Your task to perform on an android device: see creations saved in the google photos Image 0: 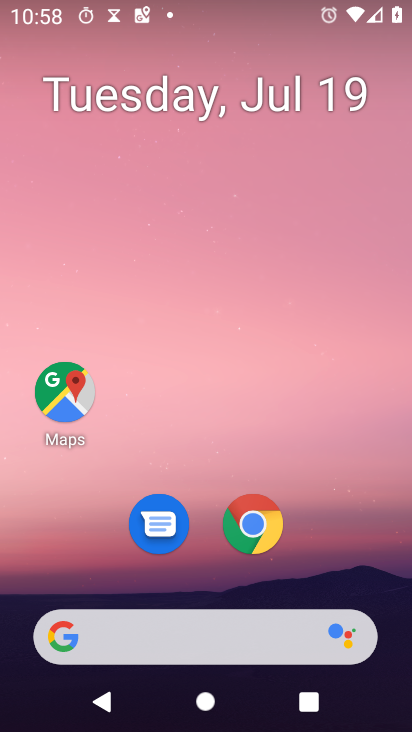
Step 0: drag from (211, 630) to (349, 132)
Your task to perform on an android device: see creations saved in the google photos Image 1: 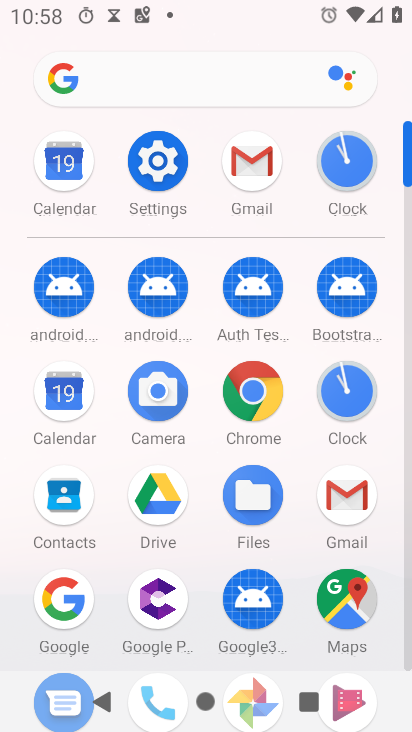
Step 1: drag from (219, 617) to (356, 300)
Your task to perform on an android device: see creations saved in the google photos Image 2: 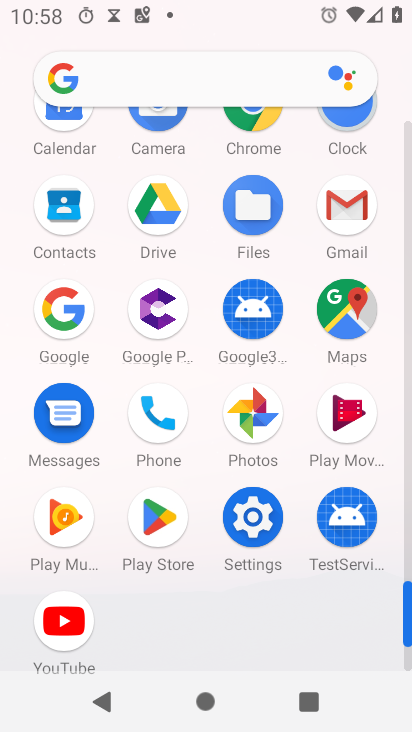
Step 2: click (261, 414)
Your task to perform on an android device: see creations saved in the google photos Image 3: 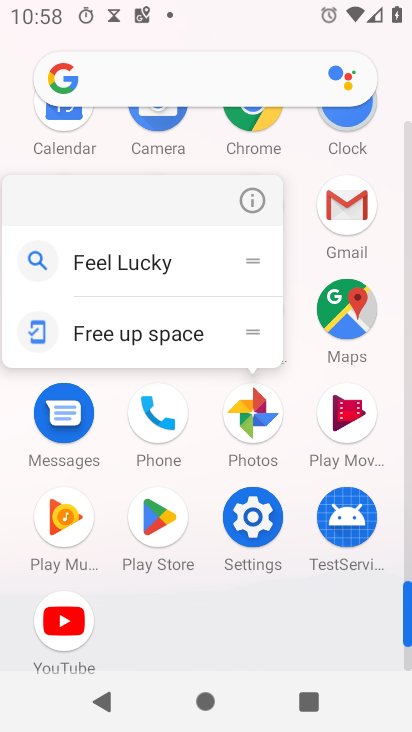
Step 3: click (255, 420)
Your task to perform on an android device: see creations saved in the google photos Image 4: 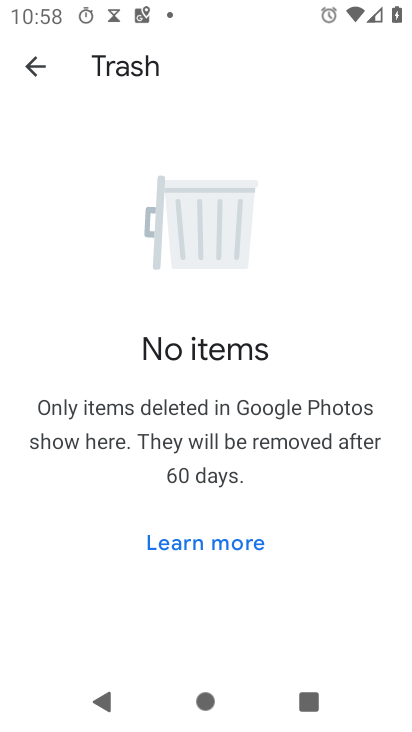
Step 4: click (32, 63)
Your task to perform on an android device: see creations saved in the google photos Image 5: 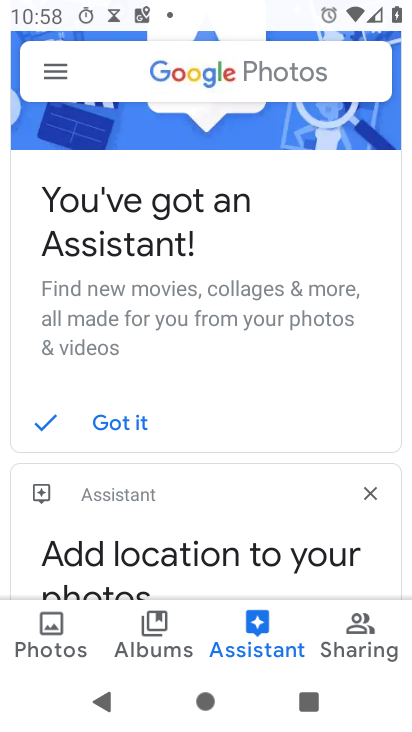
Step 5: click (152, 642)
Your task to perform on an android device: see creations saved in the google photos Image 6: 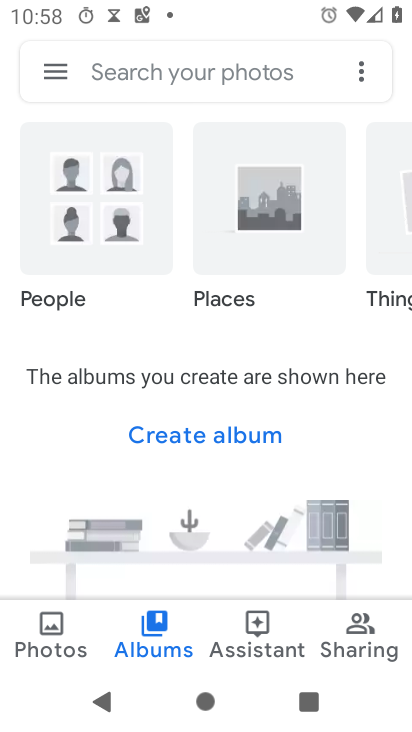
Step 6: click (177, 70)
Your task to perform on an android device: see creations saved in the google photos Image 7: 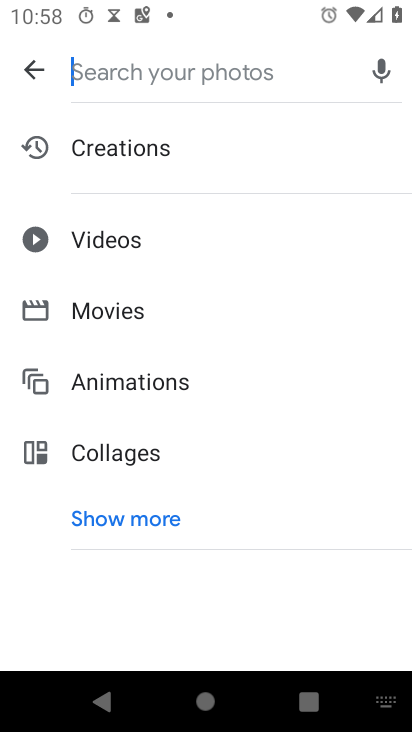
Step 7: click (125, 155)
Your task to perform on an android device: see creations saved in the google photos Image 8: 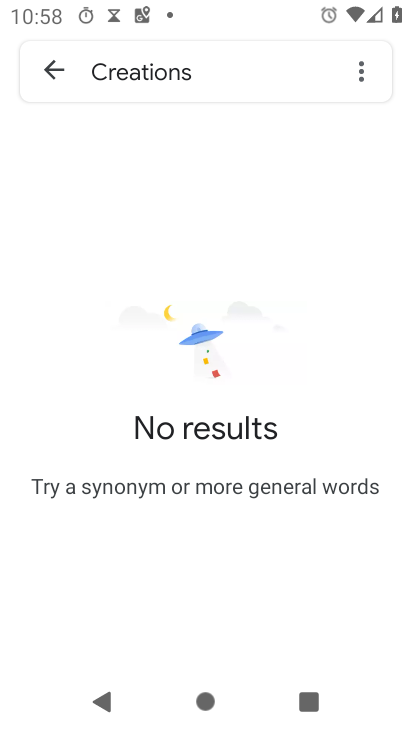
Step 8: task complete